Your task to perform on an android device: Do I have any events this weekend? Image 0: 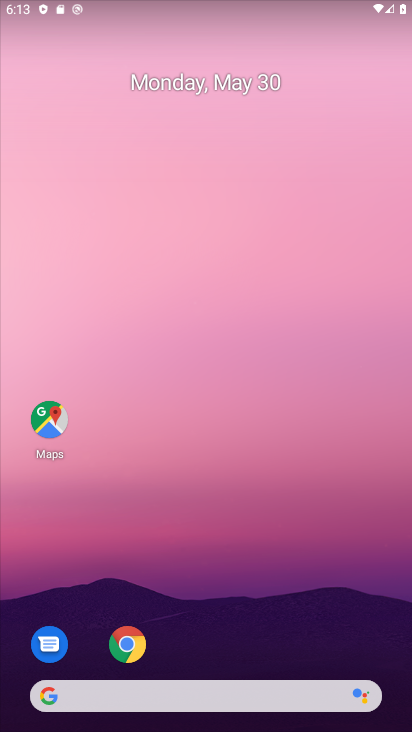
Step 0: drag from (188, 614) to (203, 181)
Your task to perform on an android device: Do I have any events this weekend? Image 1: 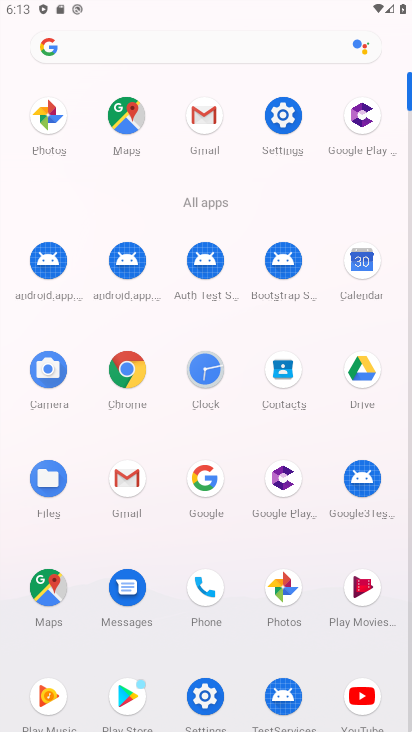
Step 1: drag from (233, 623) to (218, 443)
Your task to perform on an android device: Do I have any events this weekend? Image 2: 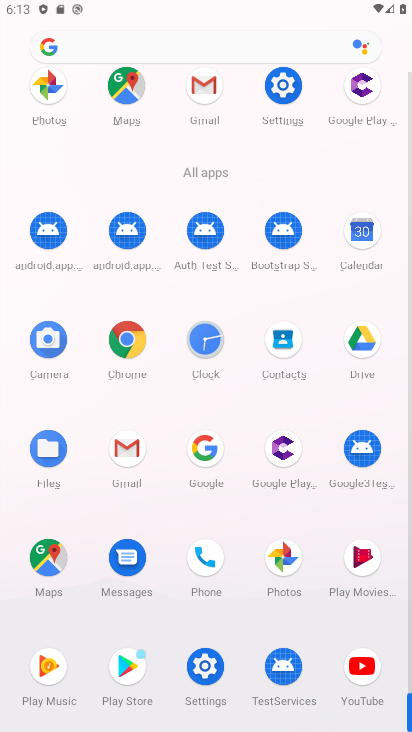
Step 2: click (375, 254)
Your task to perform on an android device: Do I have any events this weekend? Image 3: 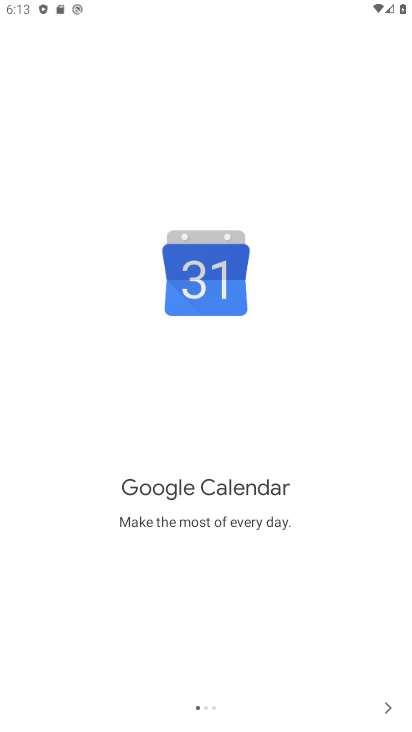
Step 3: click (386, 715)
Your task to perform on an android device: Do I have any events this weekend? Image 4: 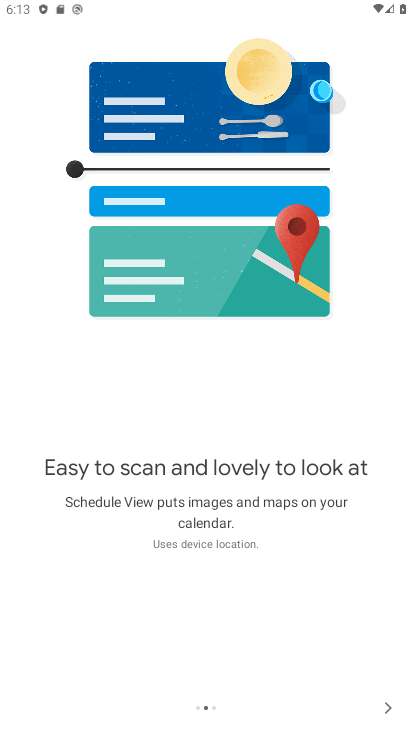
Step 4: click (386, 715)
Your task to perform on an android device: Do I have any events this weekend? Image 5: 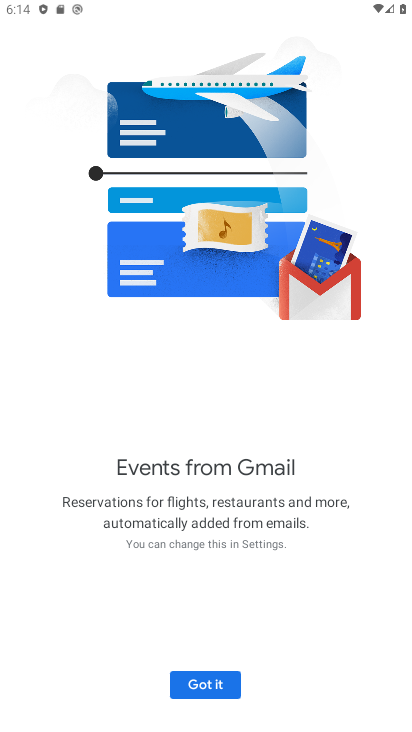
Step 5: click (181, 688)
Your task to perform on an android device: Do I have any events this weekend? Image 6: 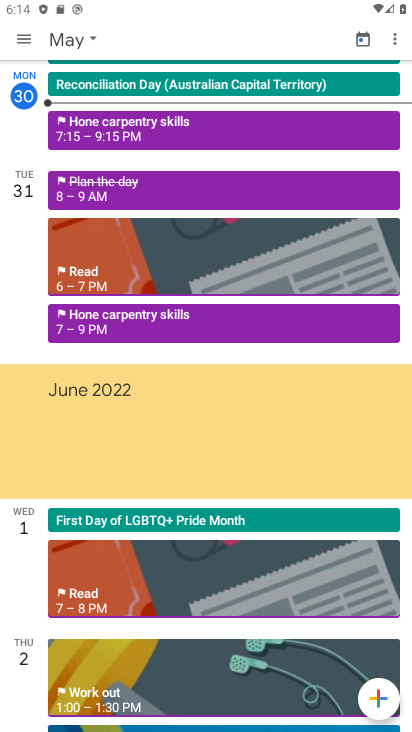
Step 6: click (20, 47)
Your task to perform on an android device: Do I have any events this weekend? Image 7: 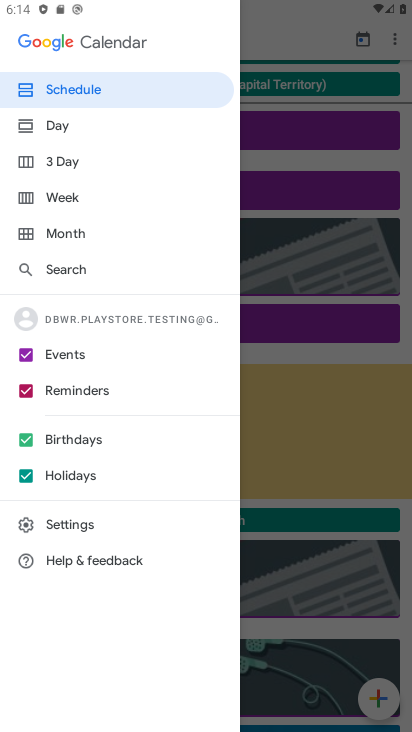
Step 7: click (77, 196)
Your task to perform on an android device: Do I have any events this weekend? Image 8: 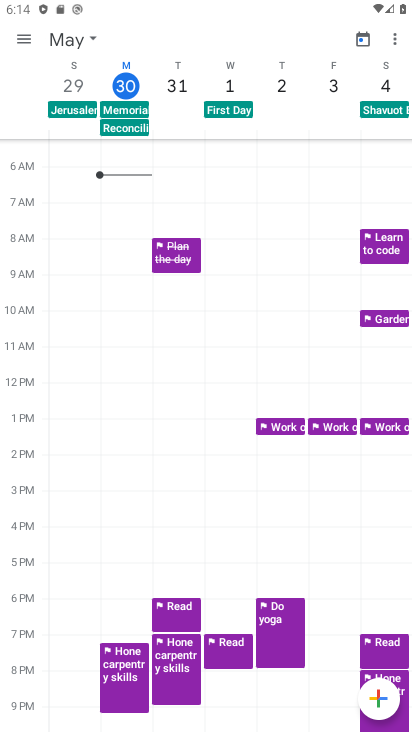
Step 8: click (73, 35)
Your task to perform on an android device: Do I have any events this weekend? Image 9: 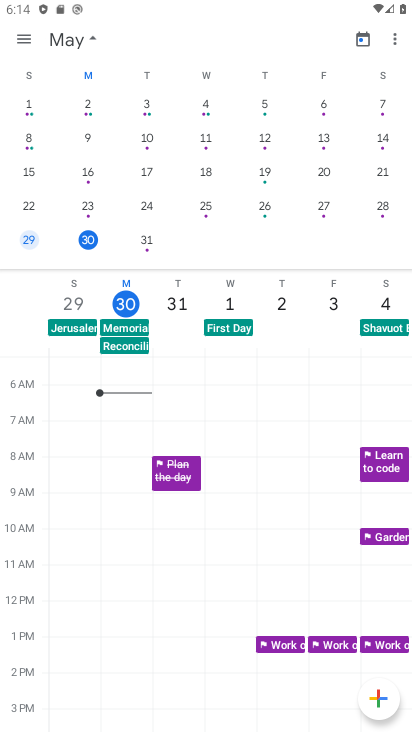
Step 9: task complete